Your task to perform on an android device: Go to sound settings Image 0: 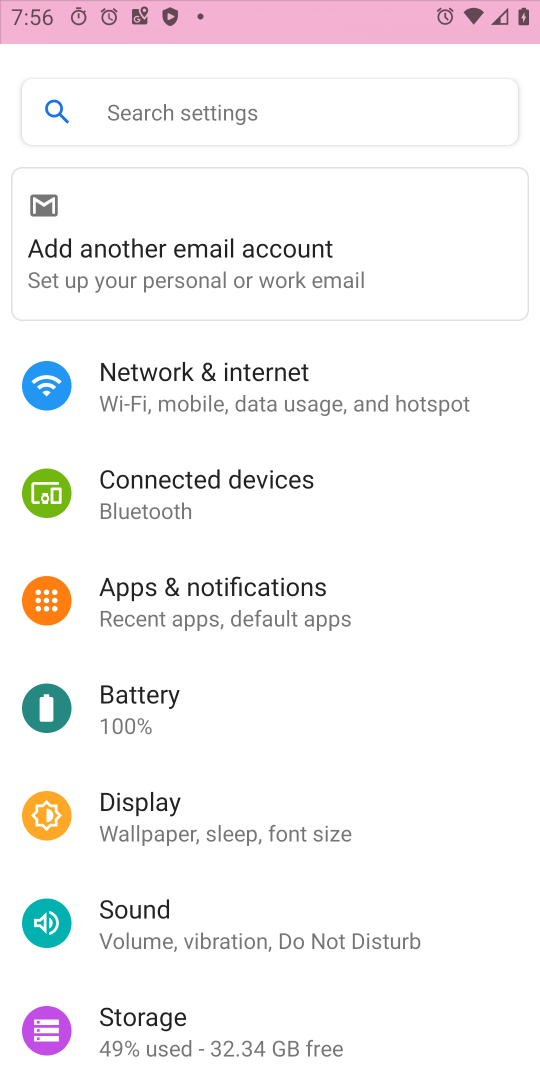
Step 0: press home button
Your task to perform on an android device: Go to sound settings Image 1: 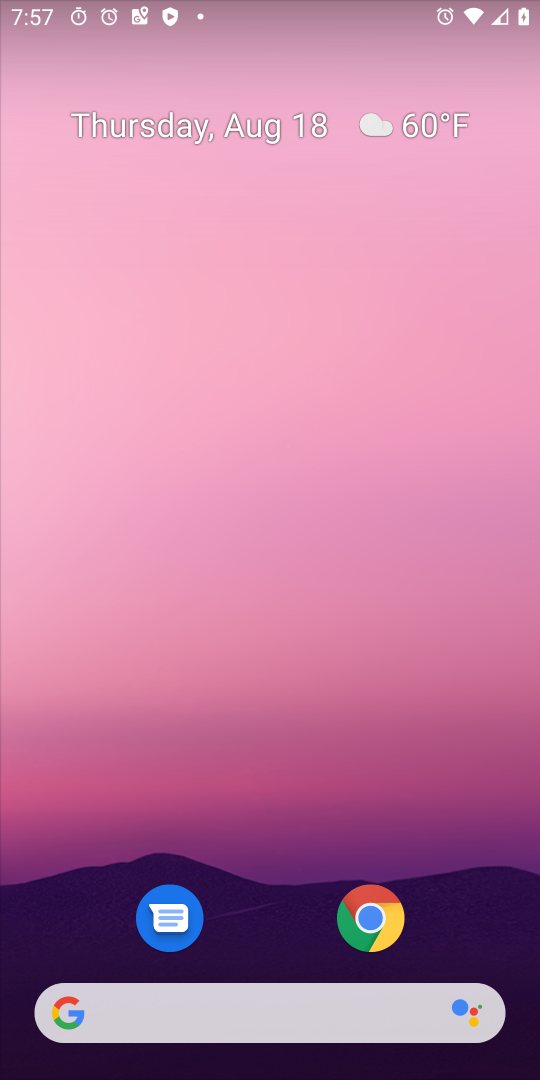
Step 1: drag from (328, 635) to (157, 7)
Your task to perform on an android device: Go to sound settings Image 2: 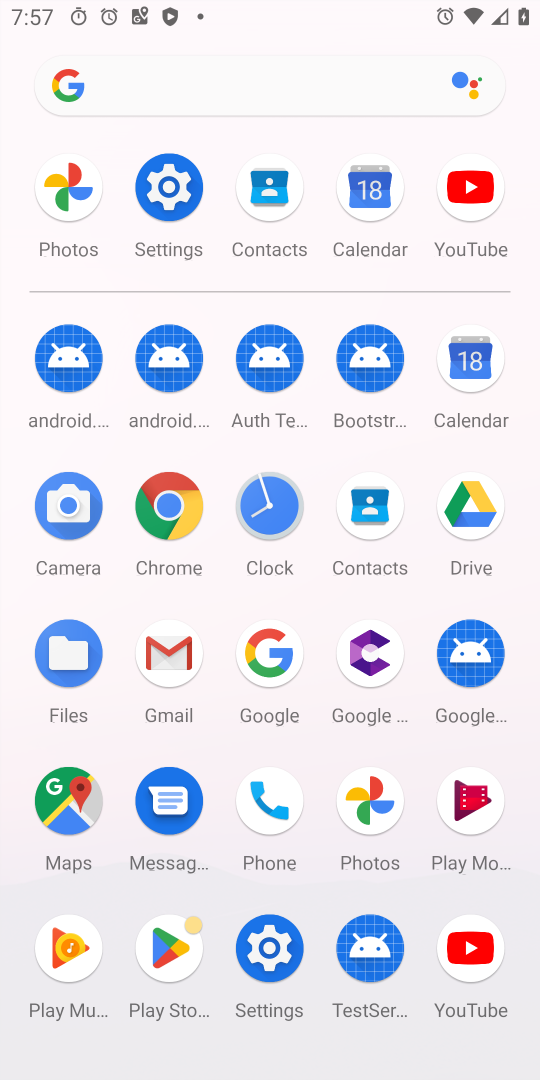
Step 2: click (148, 187)
Your task to perform on an android device: Go to sound settings Image 3: 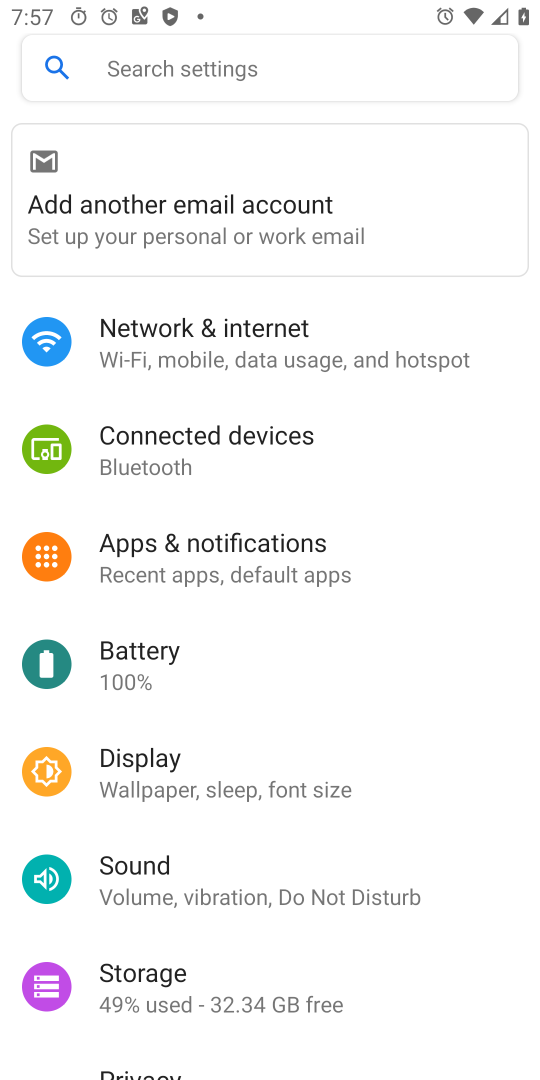
Step 3: click (147, 897)
Your task to perform on an android device: Go to sound settings Image 4: 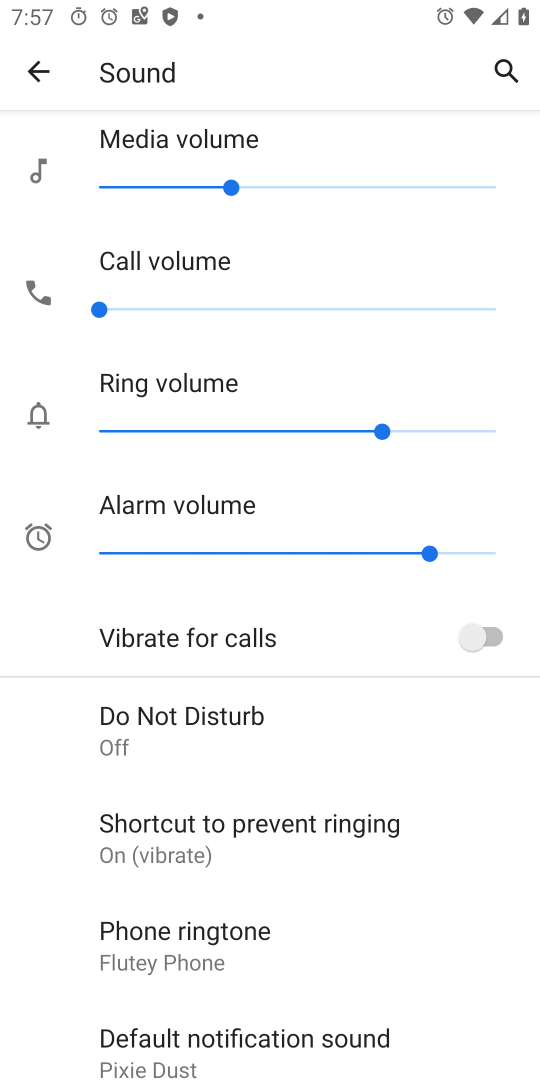
Step 4: task complete